Your task to perform on an android device: turn off picture-in-picture Image 0: 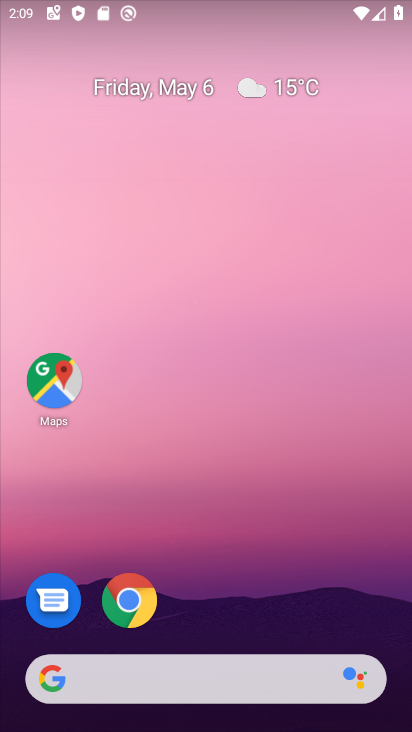
Step 0: drag from (351, 601) to (277, 44)
Your task to perform on an android device: turn off picture-in-picture Image 1: 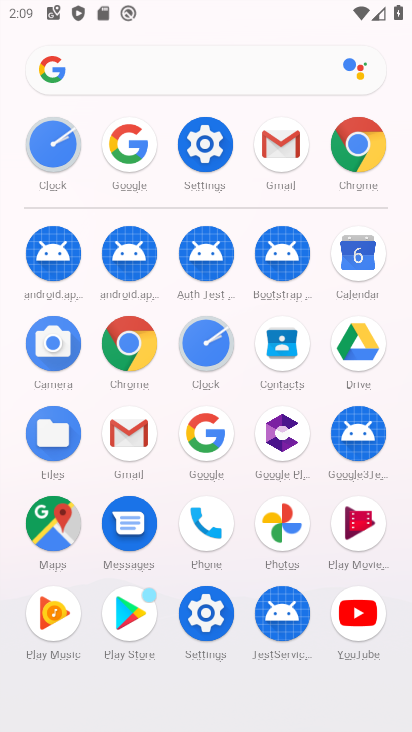
Step 1: click (129, 355)
Your task to perform on an android device: turn off picture-in-picture Image 2: 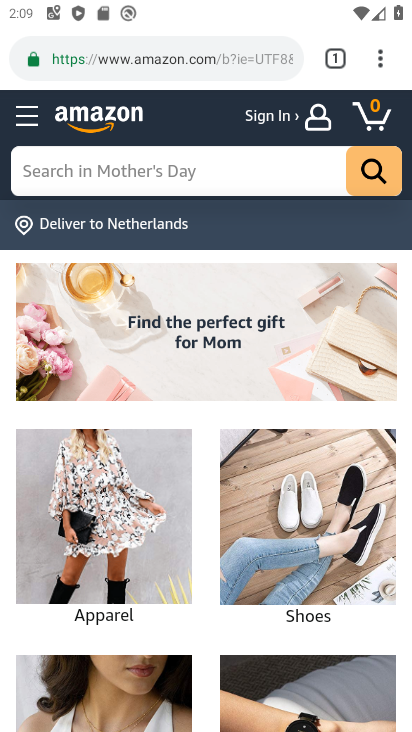
Step 2: task complete